Your task to perform on an android device: Clear the shopping cart on bestbuy.com. Image 0: 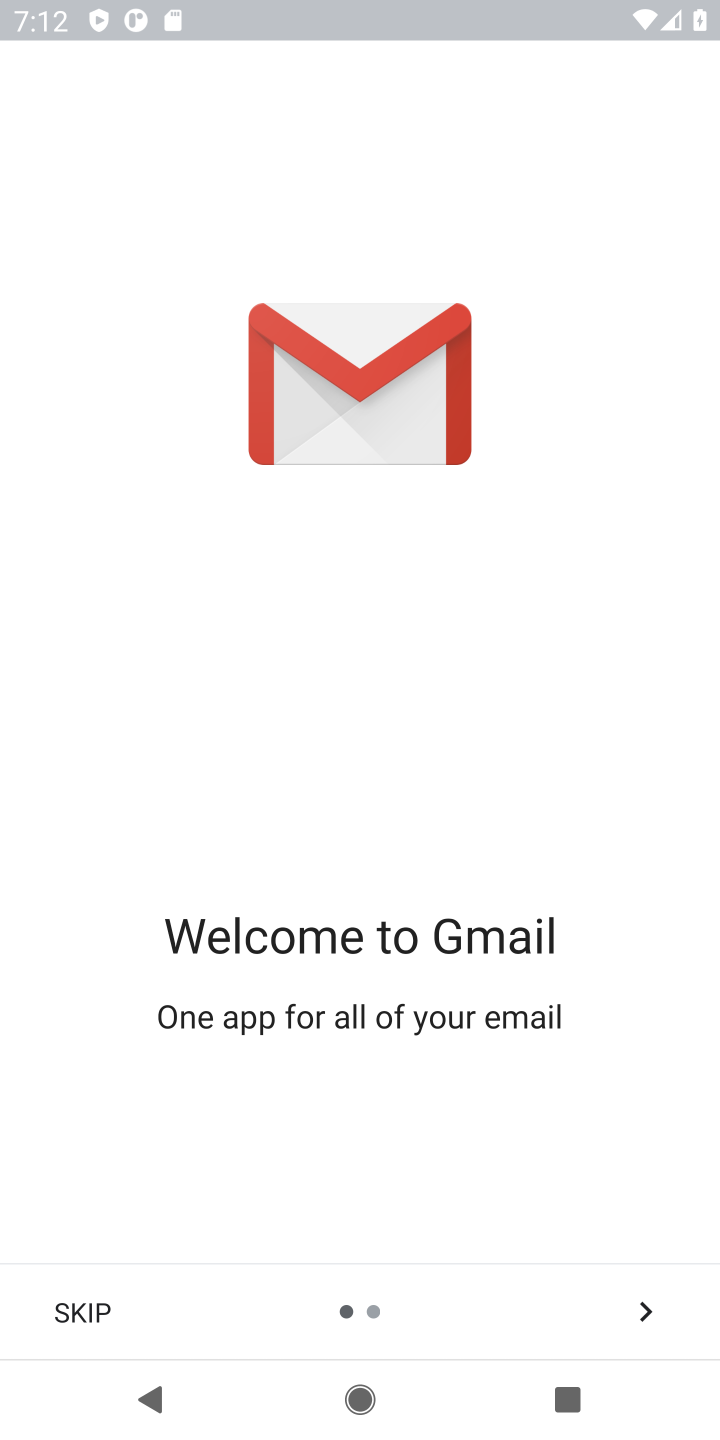
Step 0: press home button
Your task to perform on an android device: Clear the shopping cart on bestbuy.com. Image 1: 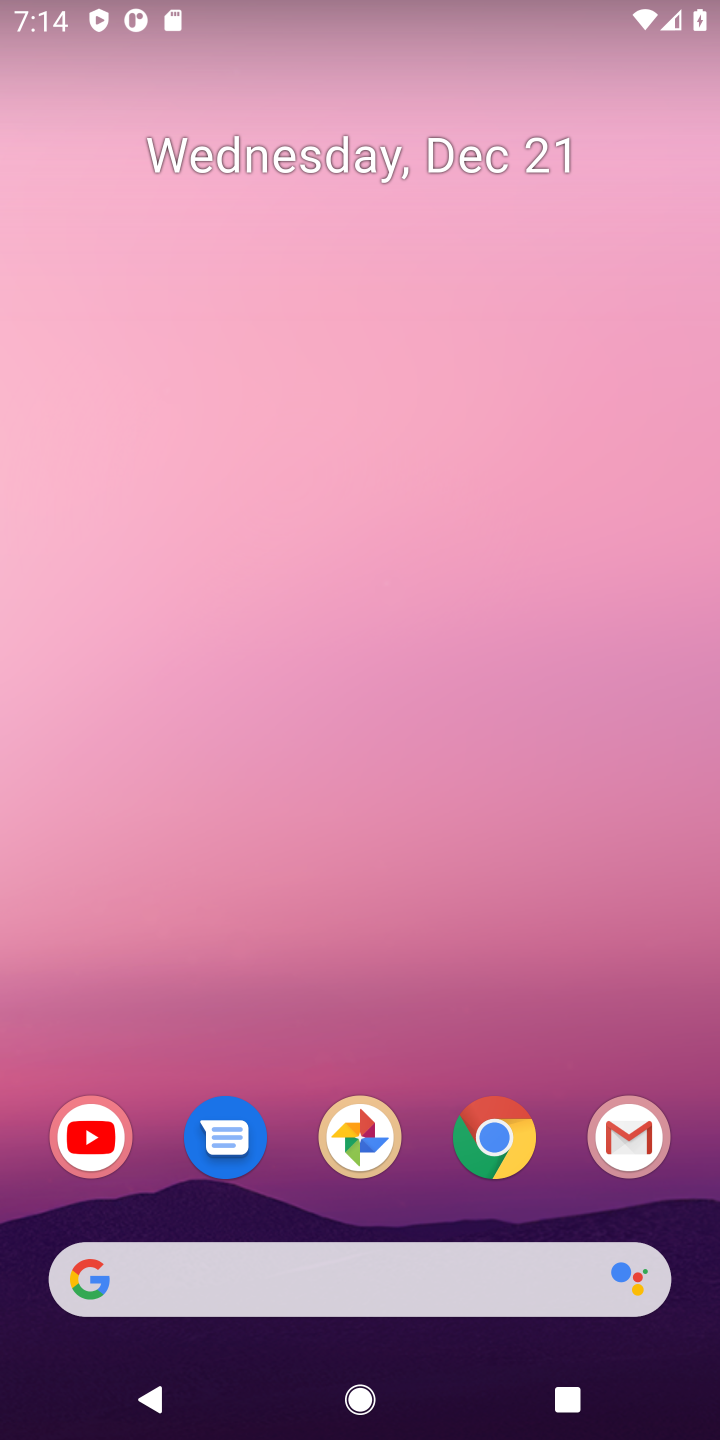
Step 1: click (512, 1147)
Your task to perform on an android device: Clear the shopping cart on bestbuy.com. Image 2: 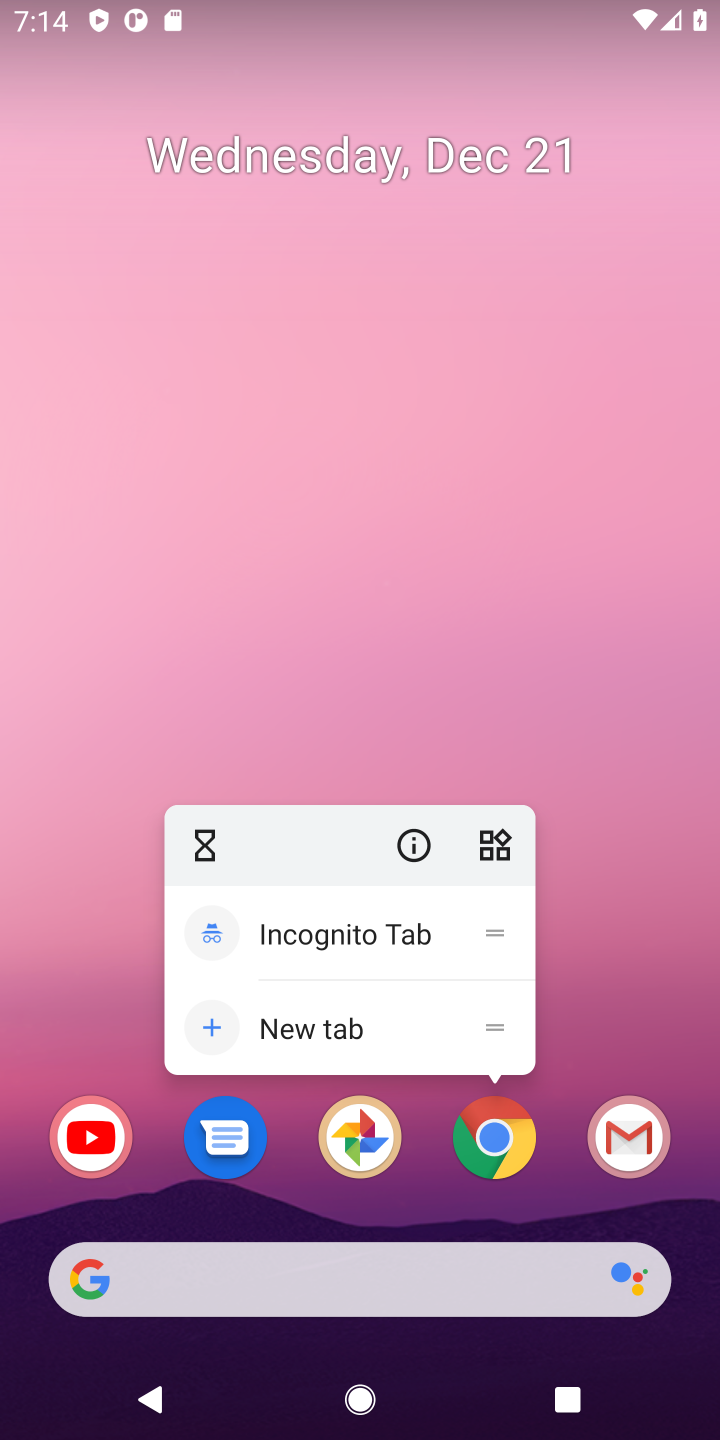
Step 2: click (496, 1152)
Your task to perform on an android device: Clear the shopping cart on bestbuy.com. Image 3: 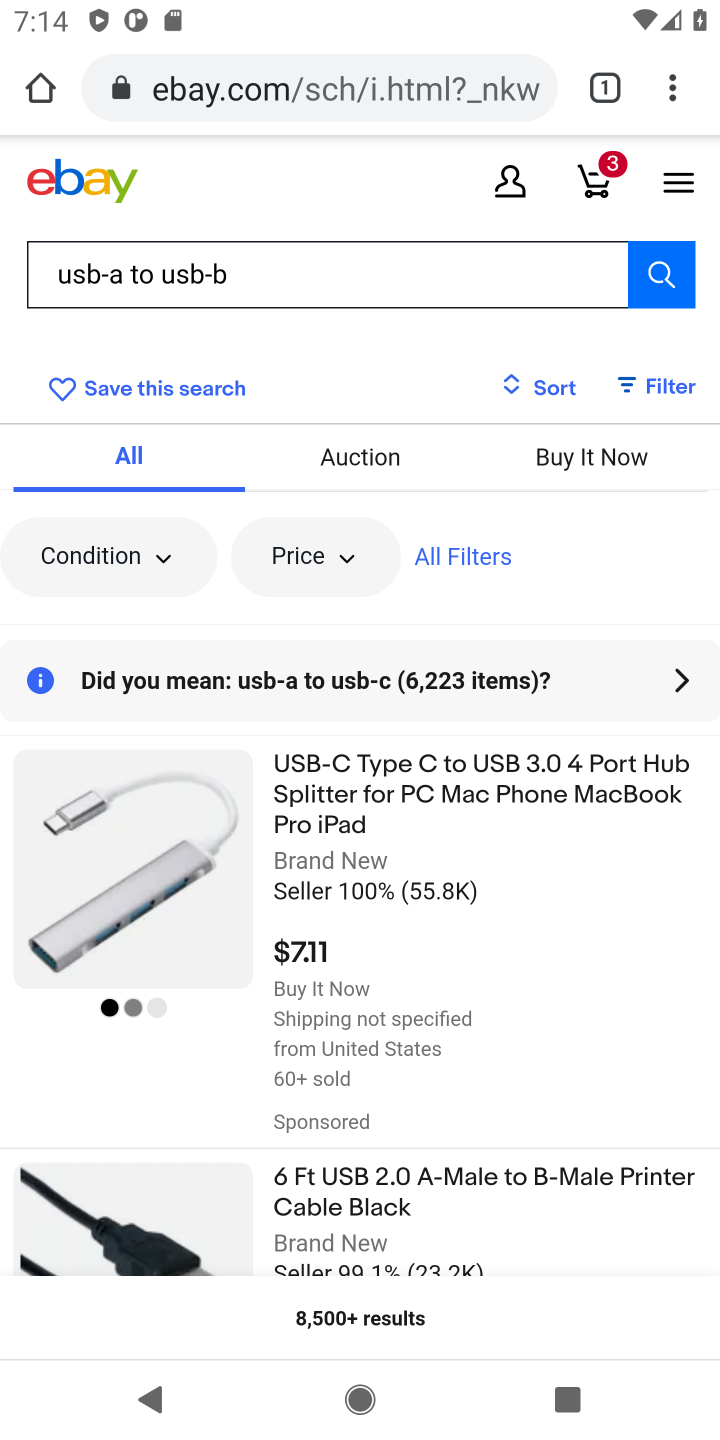
Step 3: click (262, 90)
Your task to perform on an android device: Clear the shopping cart on bestbuy.com. Image 4: 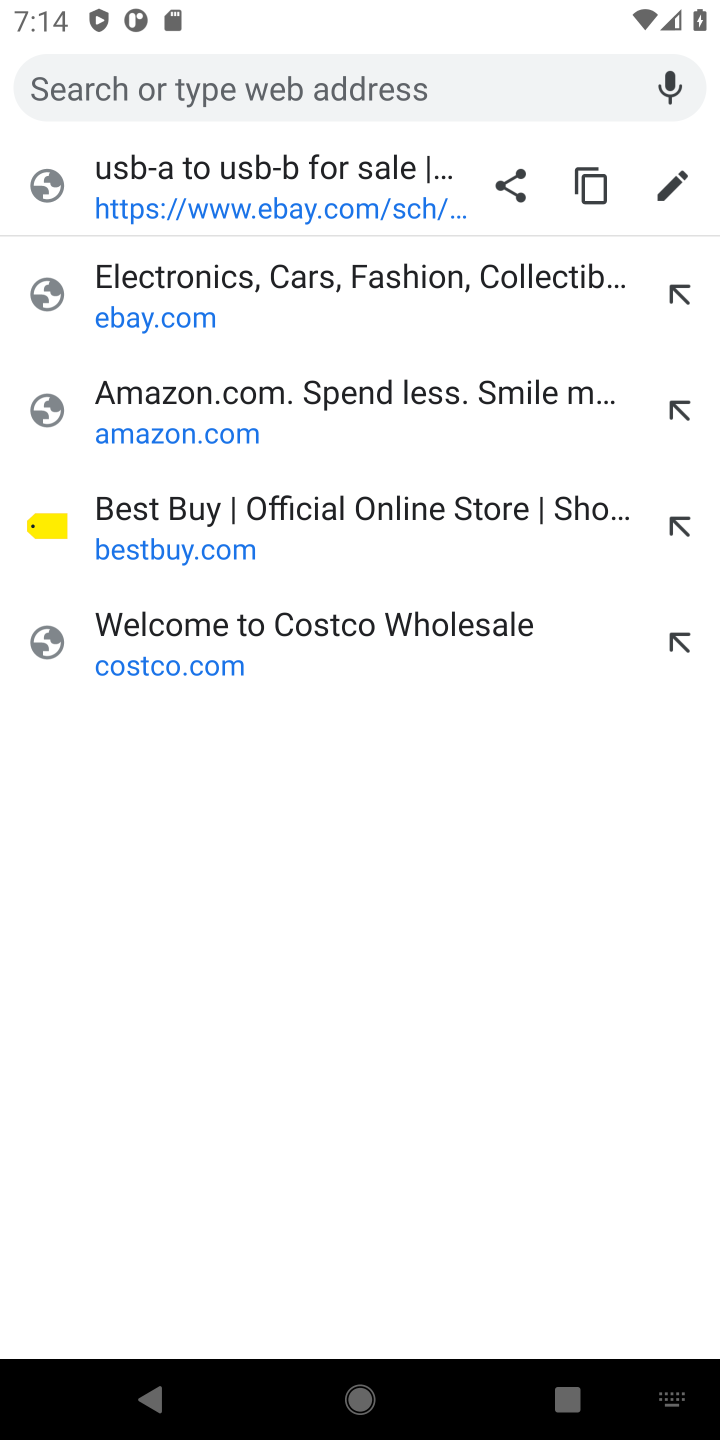
Step 4: click (130, 534)
Your task to perform on an android device: Clear the shopping cart on bestbuy.com. Image 5: 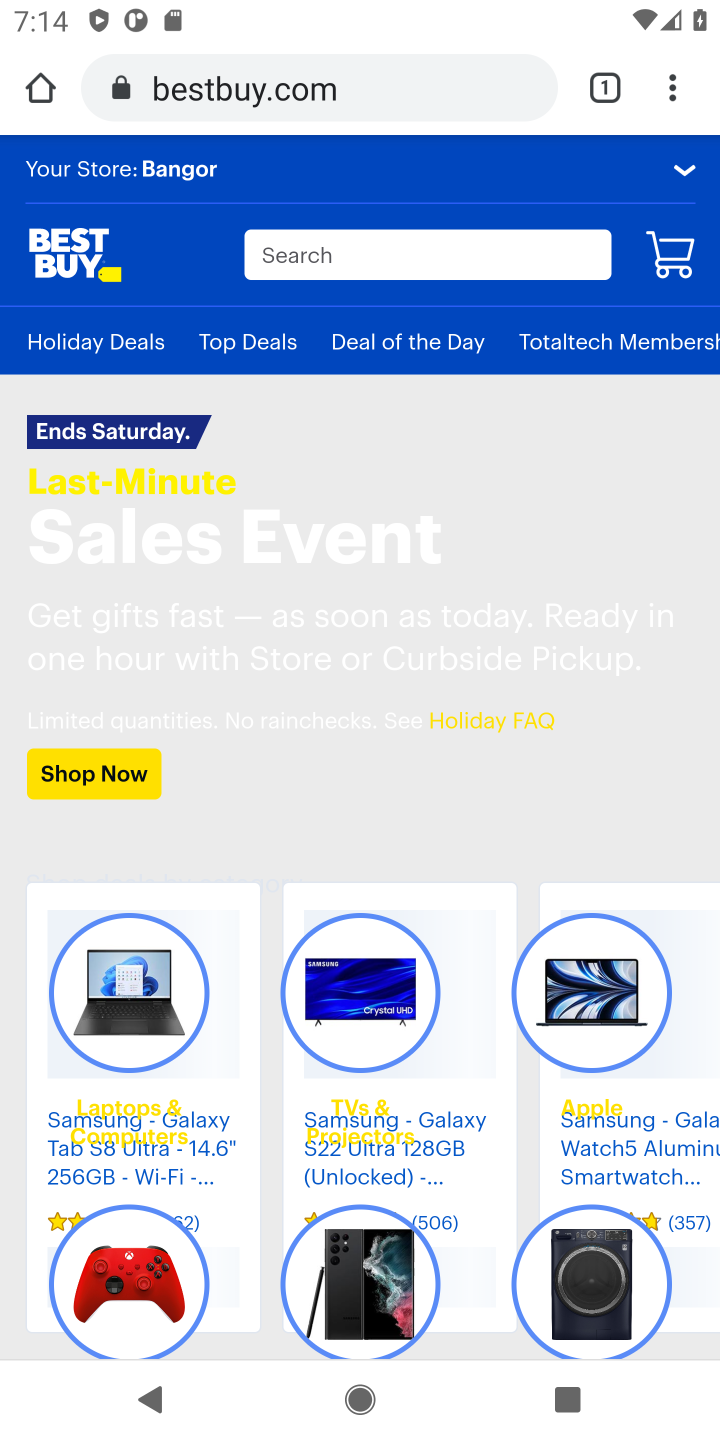
Step 5: click (663, 261)
Your task to perform on an android device: Clear the shopping cart on bestbuy.com. Image 6: 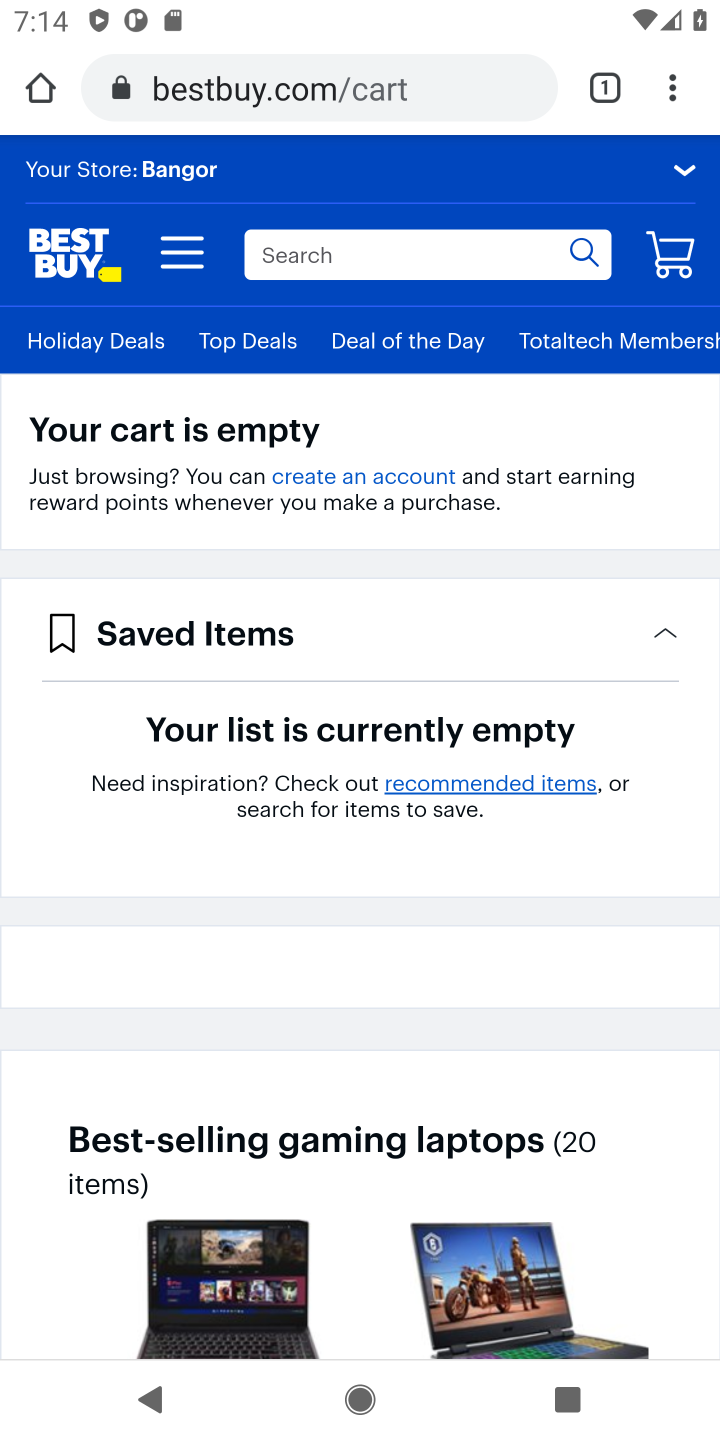
Step 6: task complete